Your task to perform on an android device: Search for hotels in Mexico city Image 0: 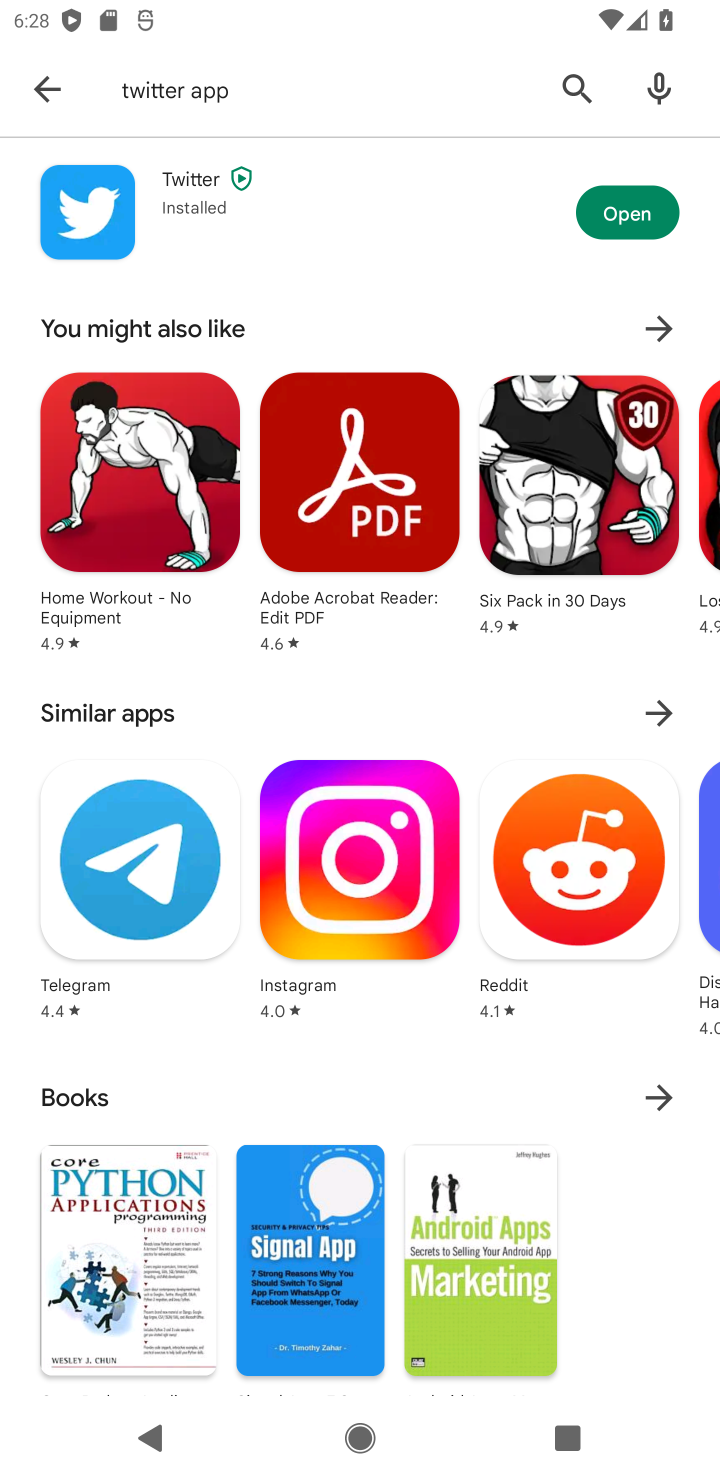
Step 0: press home button
Your task to perform on an android device: Search for hotels in Mexico city Image 1: 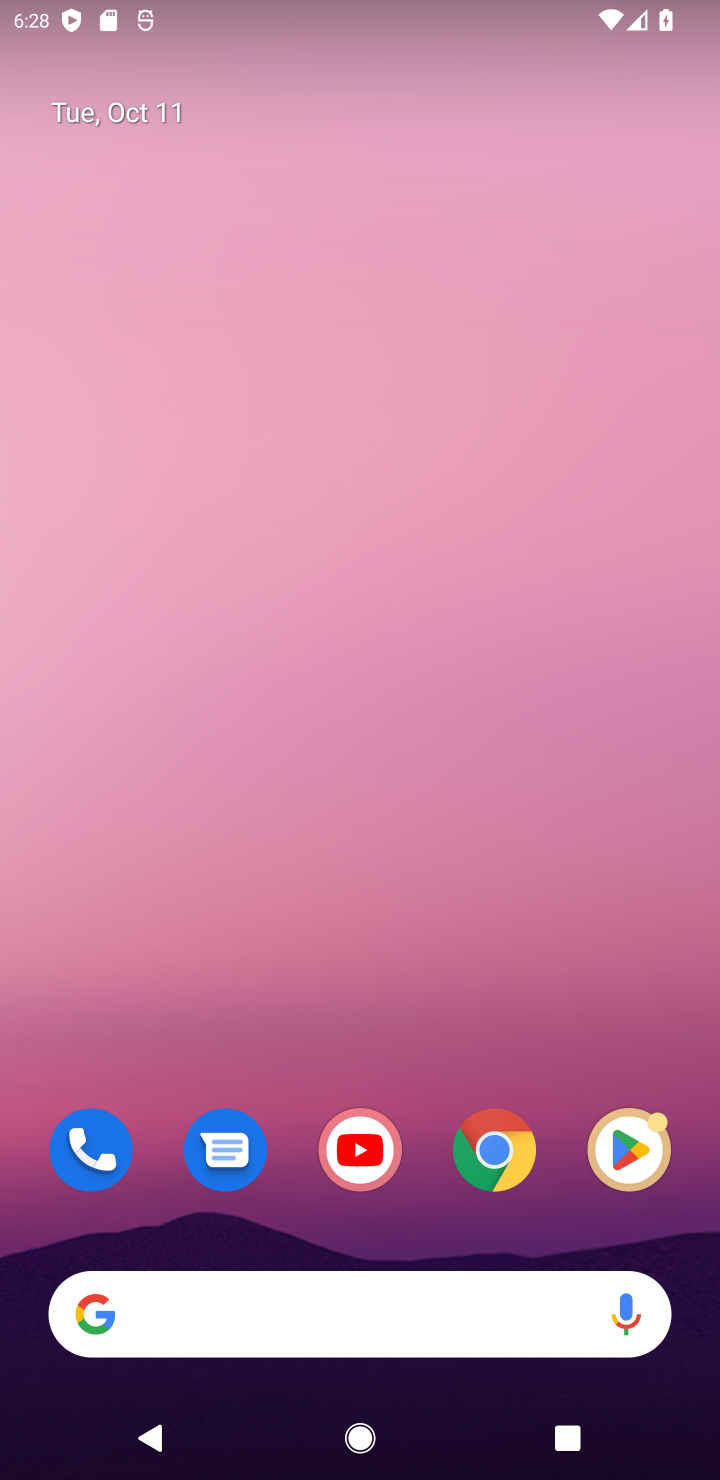
Step 1: click (484, 1143)
Your task to perform on an android device: Search for hotels in Mexico city Image 2: 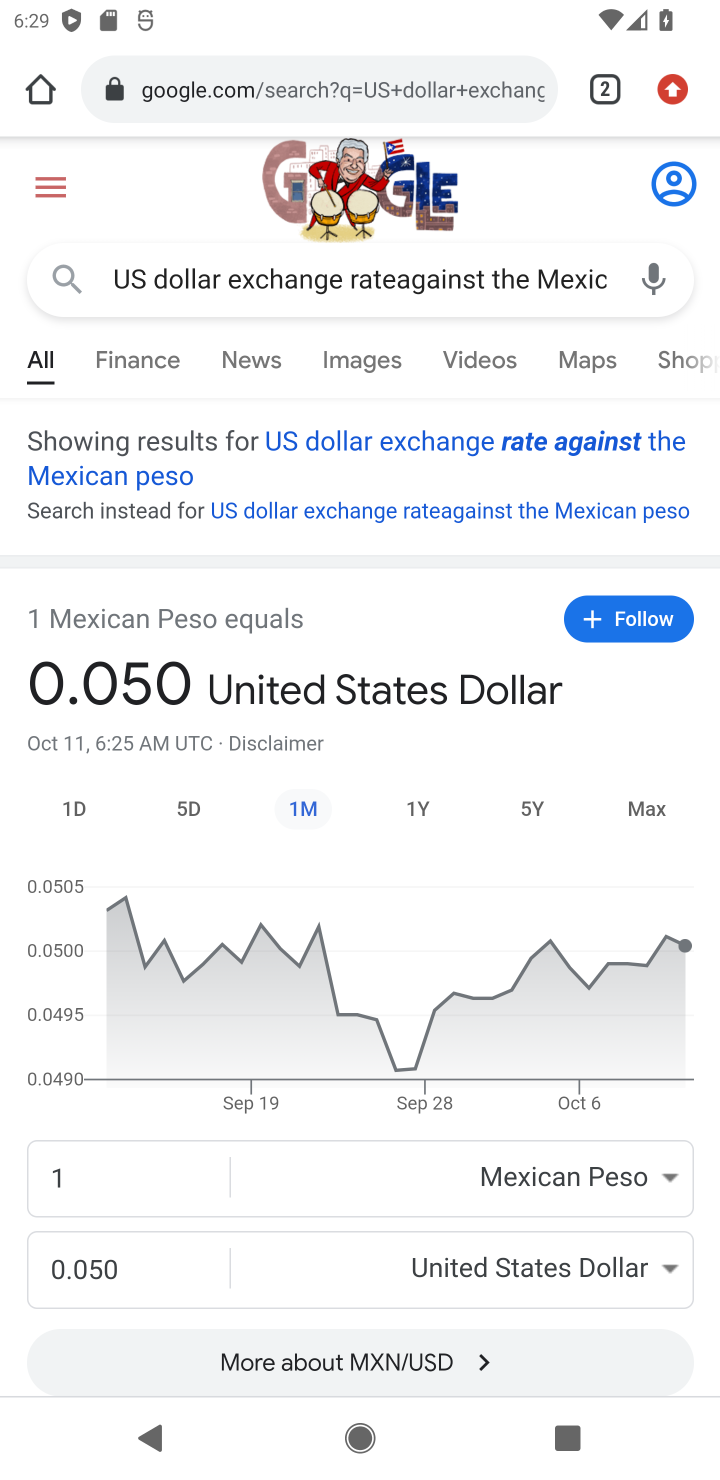
Step 2: click (494, 262)
Your task to perform on an android device: Search for hotels in Mexico city Image 3: 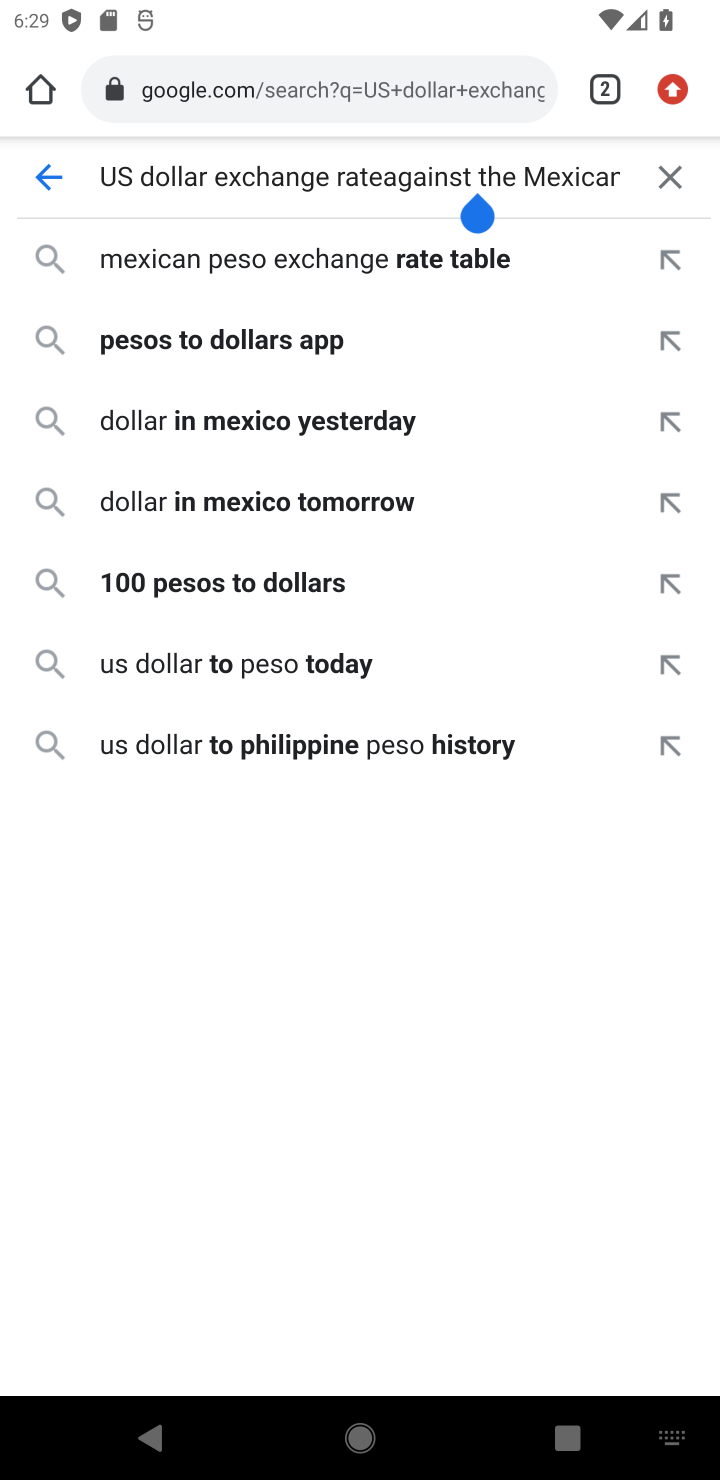
Step 3: click (672, 175)
Your task to perform on an android device: Search for hotels in Mexico city Image 4: 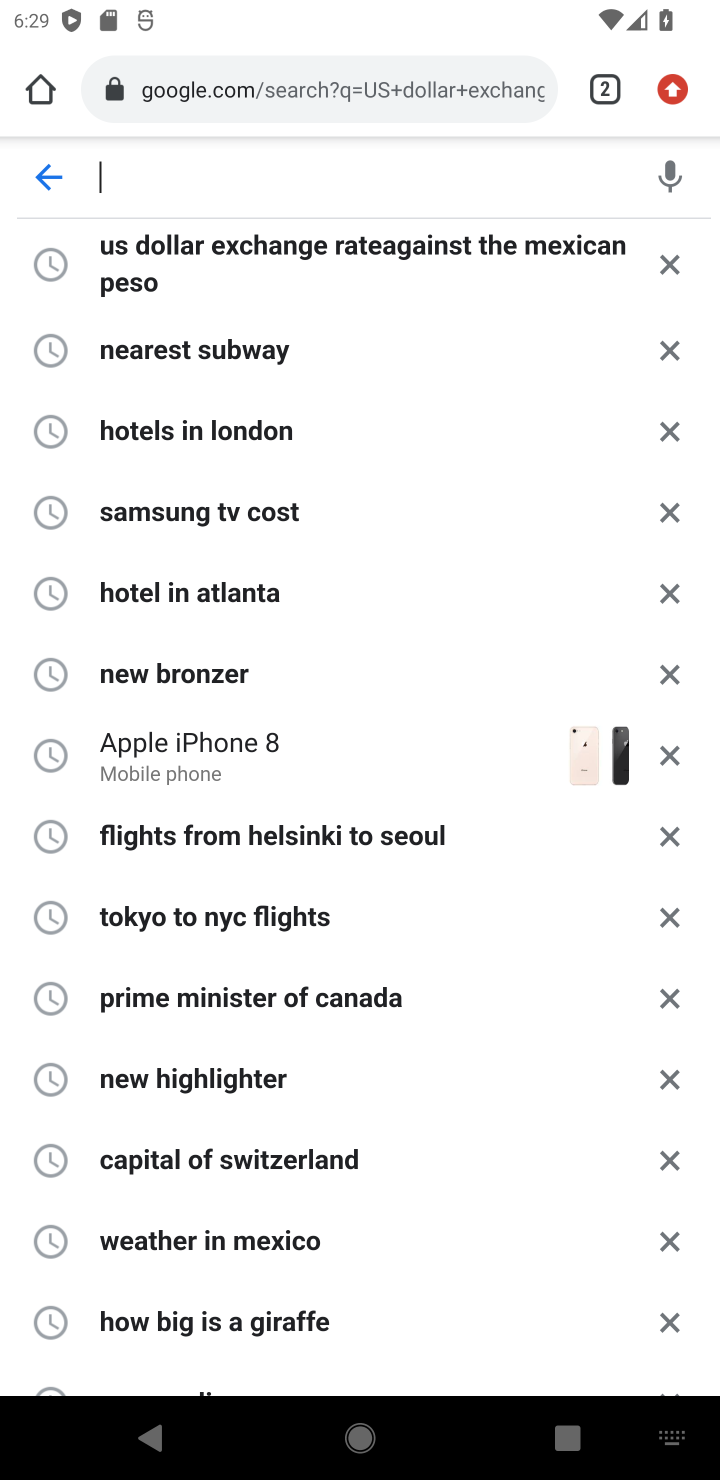
Step 4: click (269, 164)
Your task to perform on an android device: Search for hotels in Mexico city Image 5: 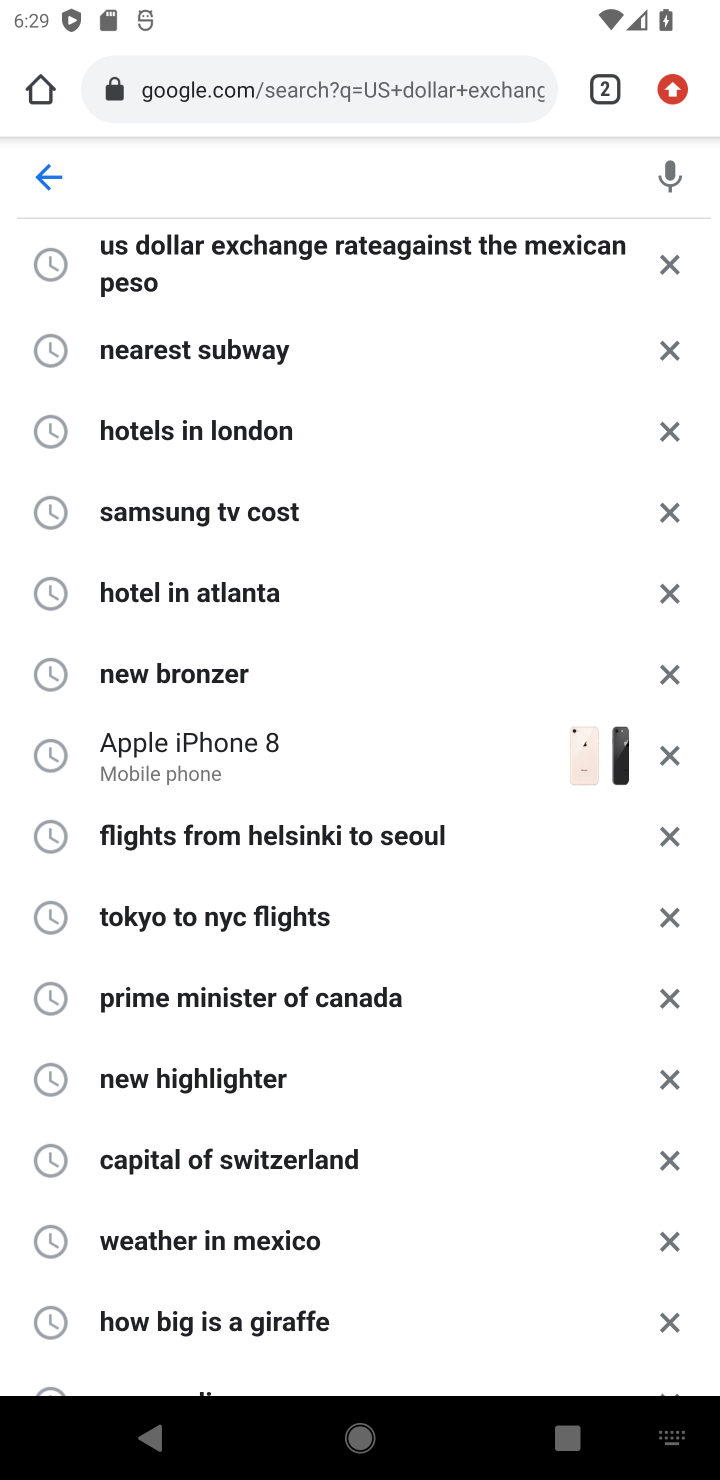
Step 5: type "hotels in Mexico city"
Your task to perform on an android device: Search for hotels in Mexico city Image 6: 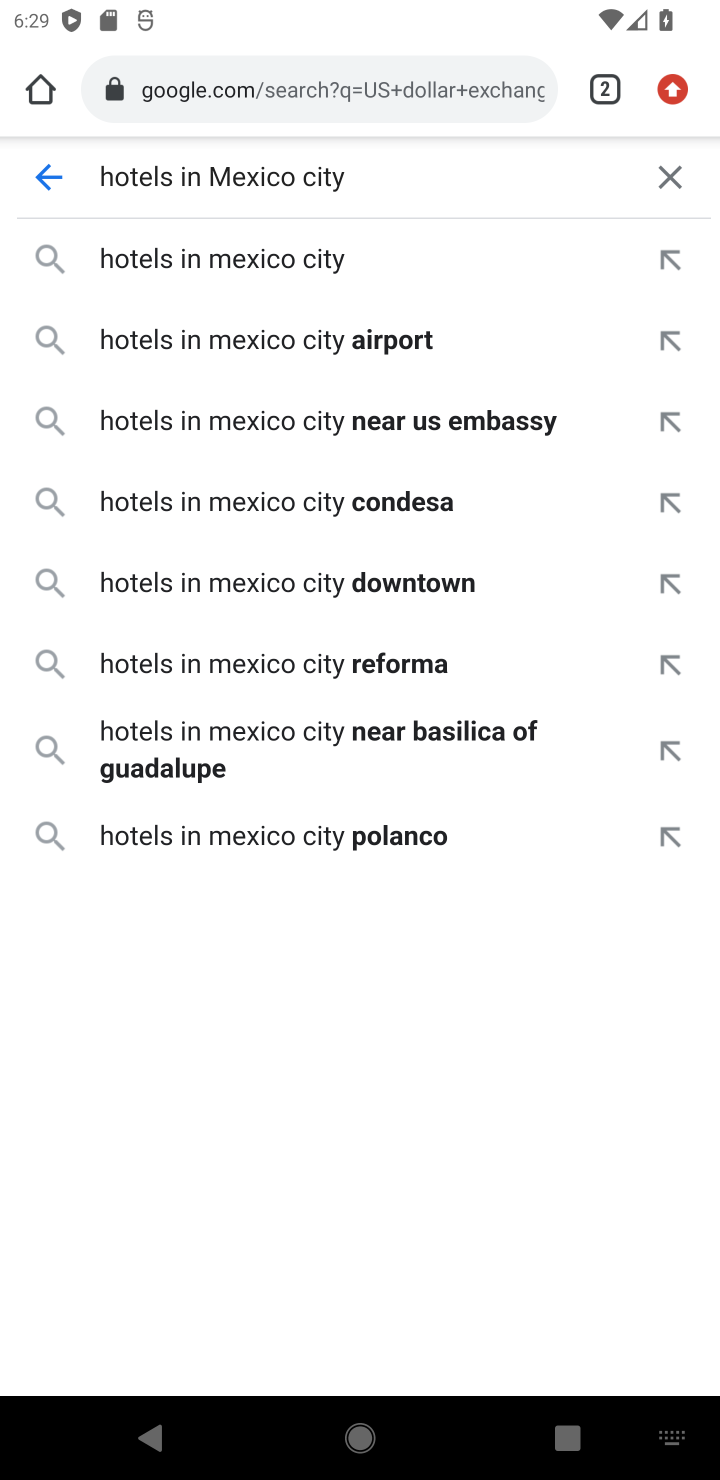
Step 6: click (259, 263)
Your task to perform on an android device: Search for hotels in Mexico city Image 7: 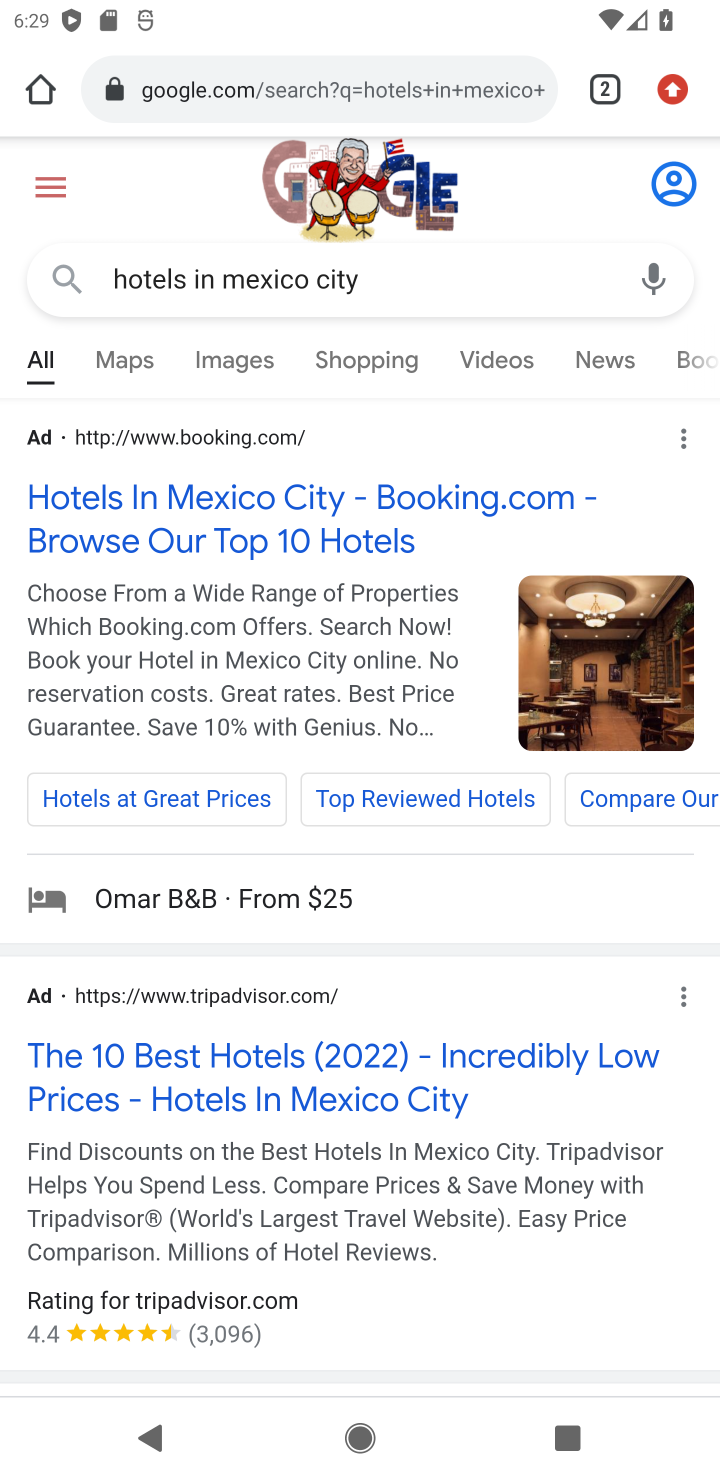
Step 7: click (206, 551)
Your task to perform on an android device: Search for hotels in Mexico city Image 8: 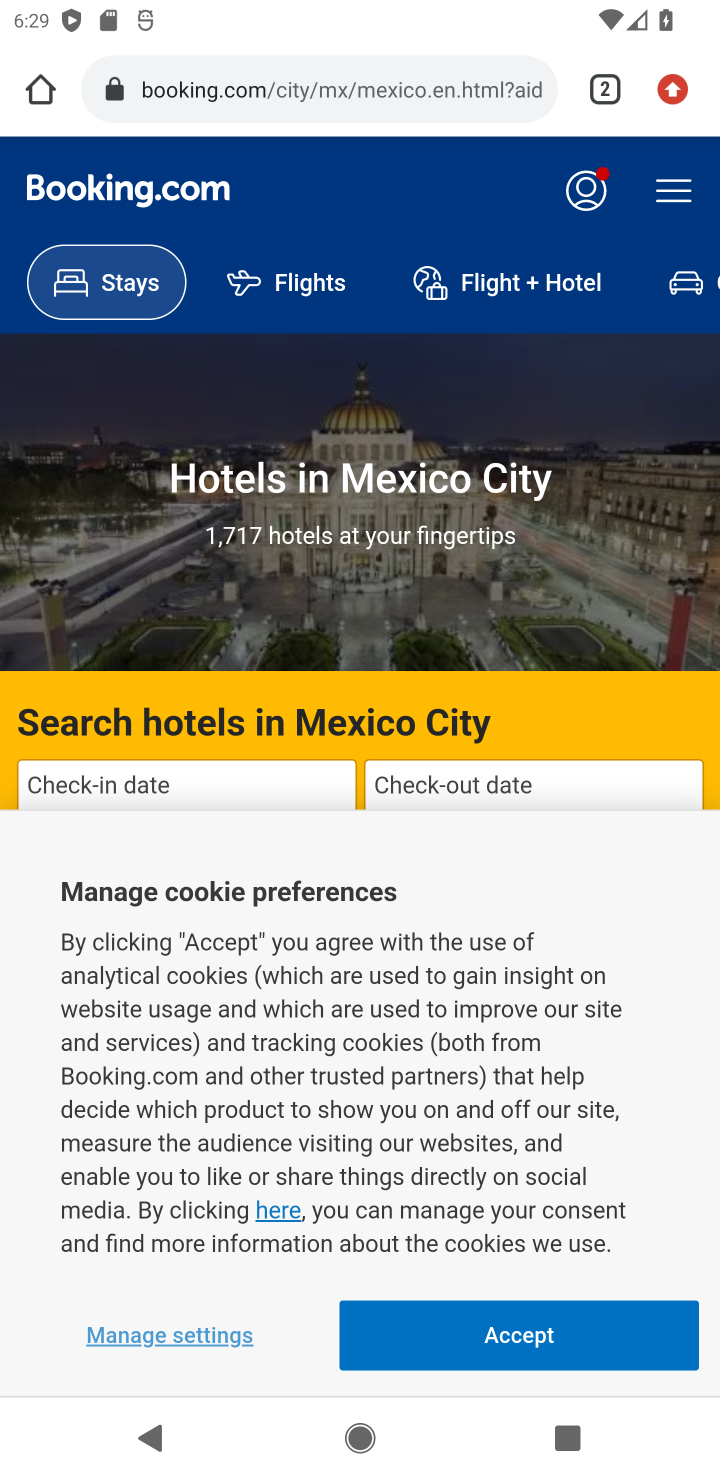
Step 8: task complete